Your task to perform on an android device: Search for a tv stand on Ikea Image 0: 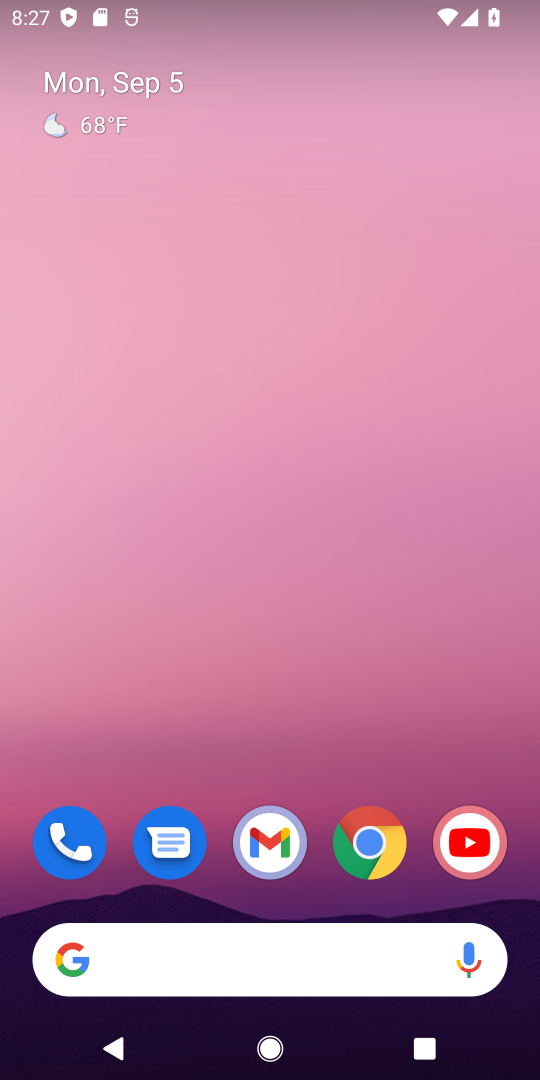
Step 0: click (370, 843)
Your task to perform on an android device: Search for a tv stand on Ikea Image 1: 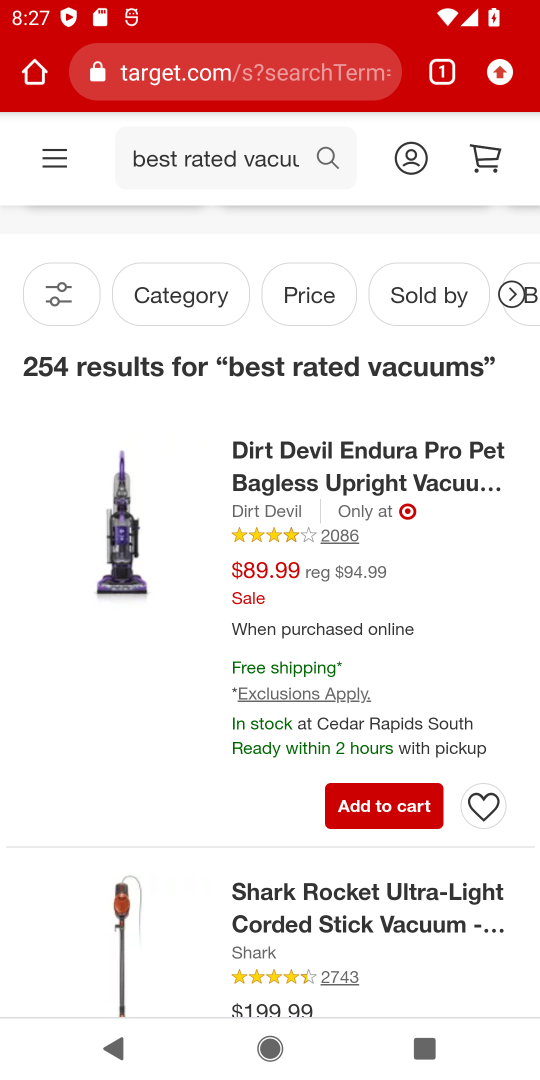
Step 1: click (330, 84)
Your task to perform on an android device: Search for a tv stand on Ikea Image 2: 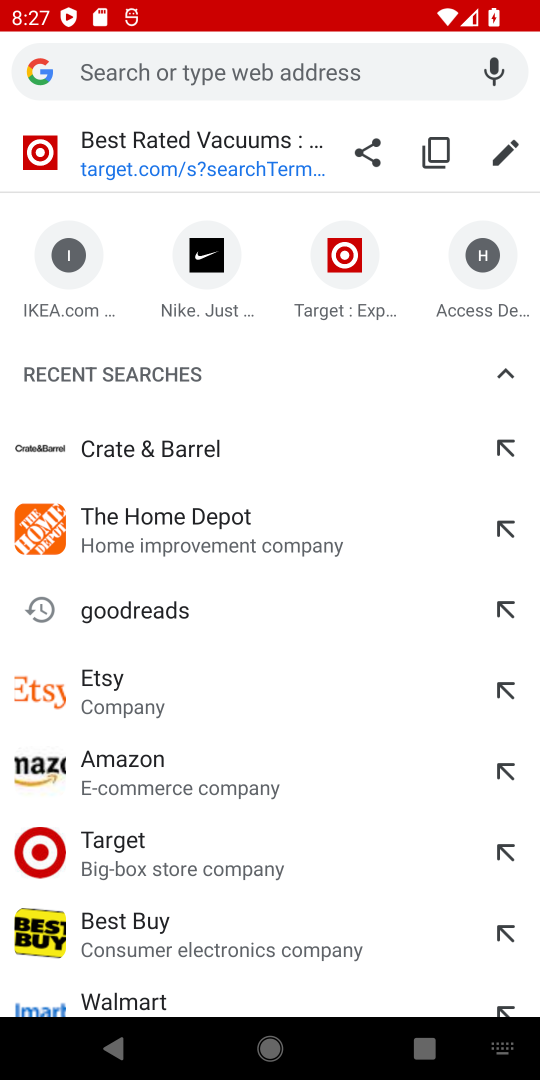
Step 2: type "ikea"
Your task to perform on an android device: Search for a tv stand on Ikea Image 3: 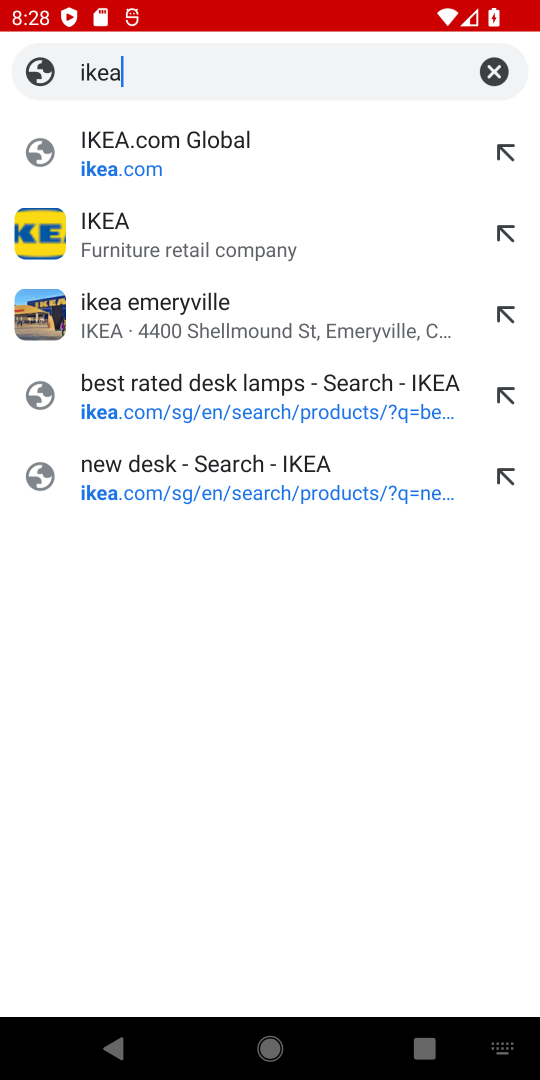
Step 3: click (111, 160)
Your task to perform on an android device: Search for a tv stand on Ikea Image 4: 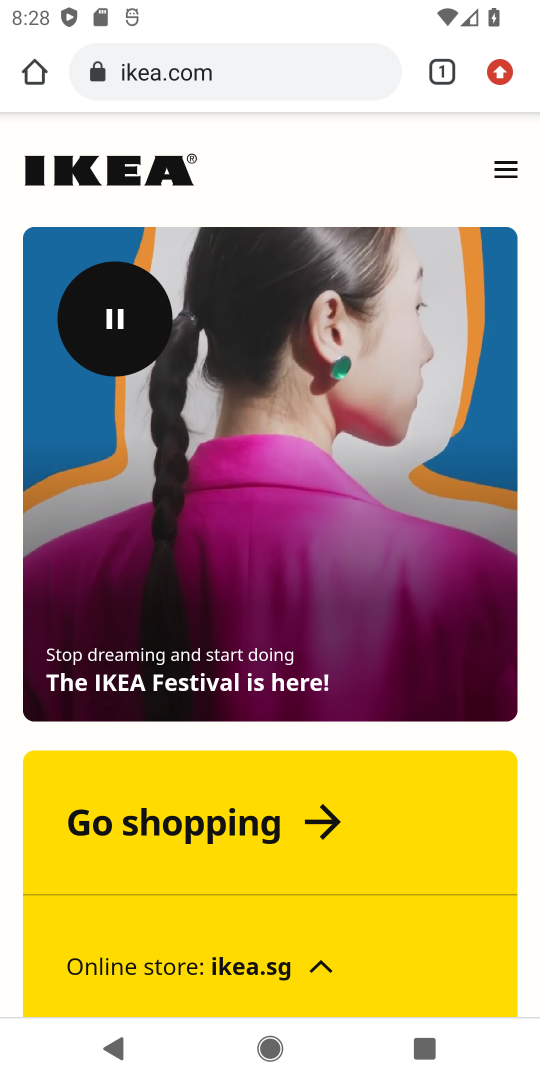
Step 4: click (334, 822)
Your task to perform on an android device: Search for a tv stand on Ikea Image 5: 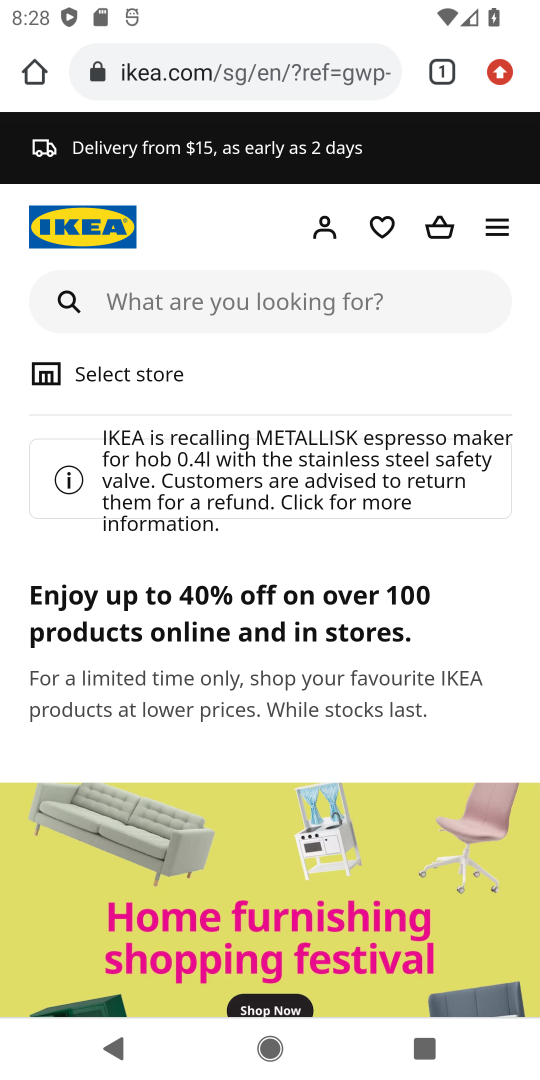
Step 5: click (160, 303)
Your task to perform on an android device: Search for a tv stand on Ikea Image 6: 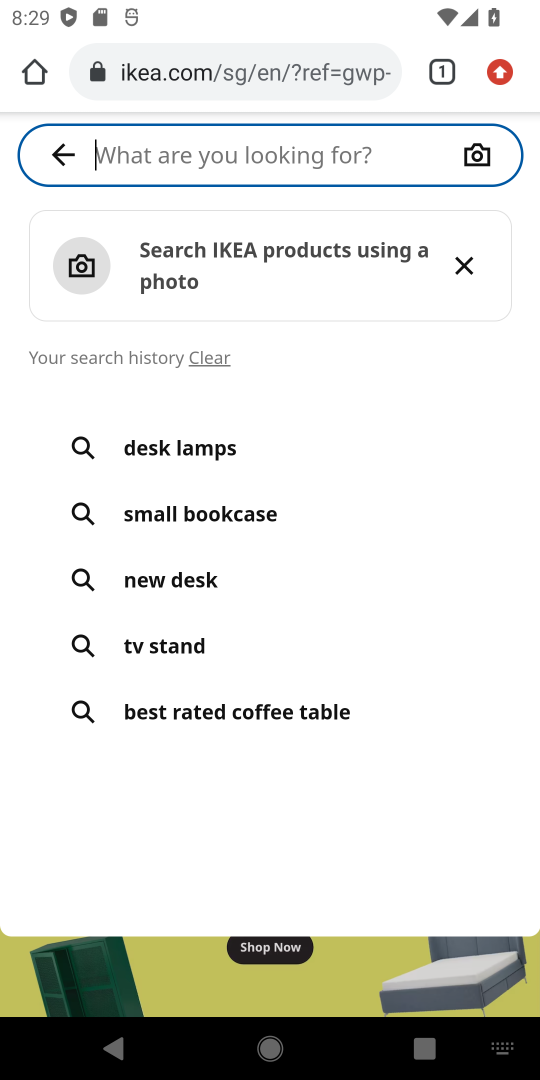
Step 6: type "tv stand"
Your task to perform on an android device: Search for a tv stand on Ikea Image 7: 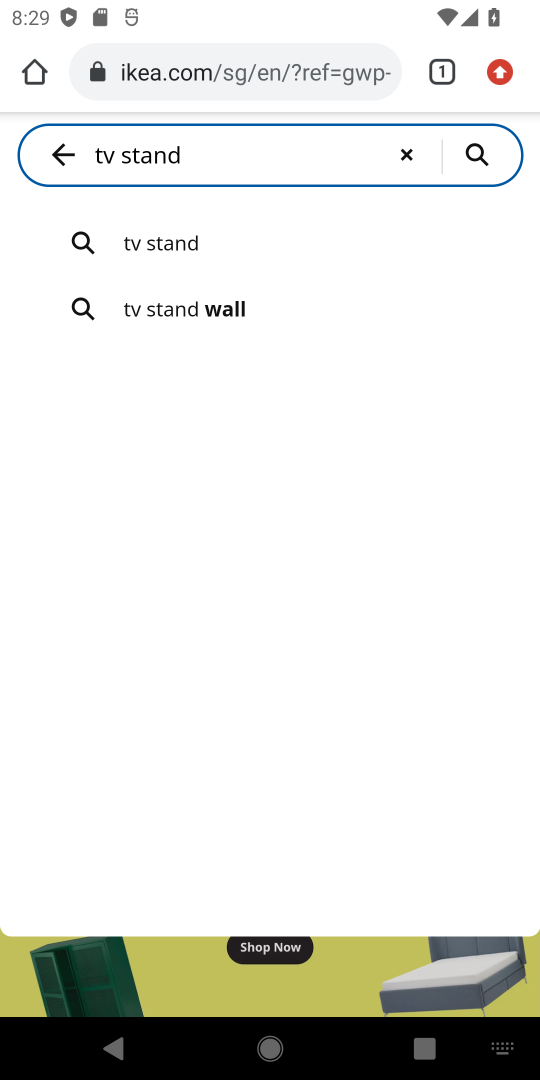
Step 7: click (471, 158)
Your task to perform on an android device: Search for a tv stand on Ikea Image 8: 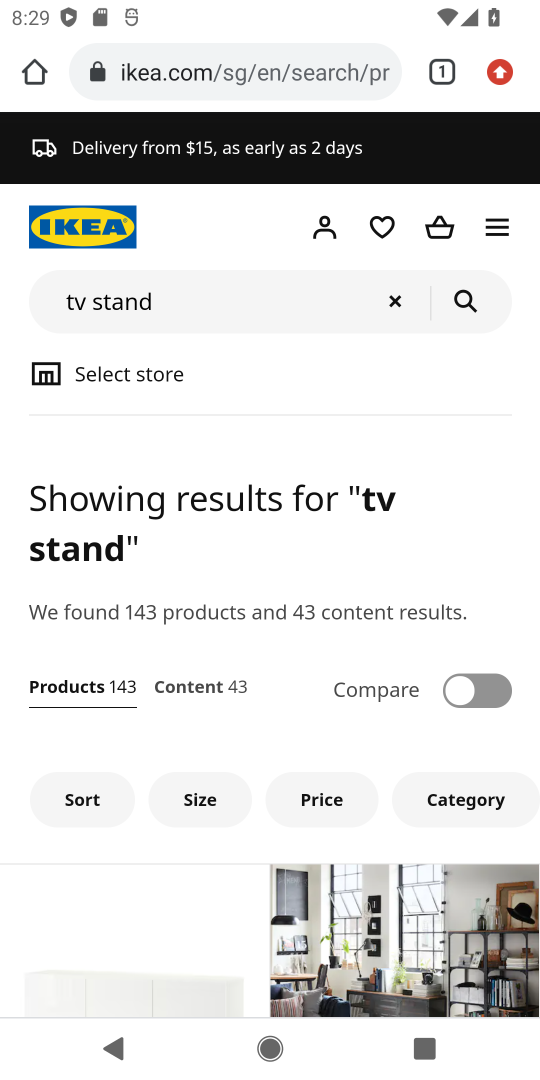
Step 8: task complete